Your task to perform on an android device: Open location settings Image 0: 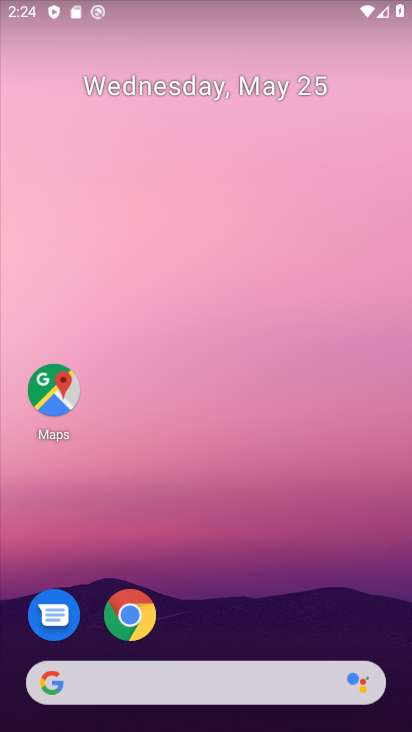
Step 0: drag from (310, 623) to (319, 0)
Your task to perform on an android device: Open location settings Image 1: 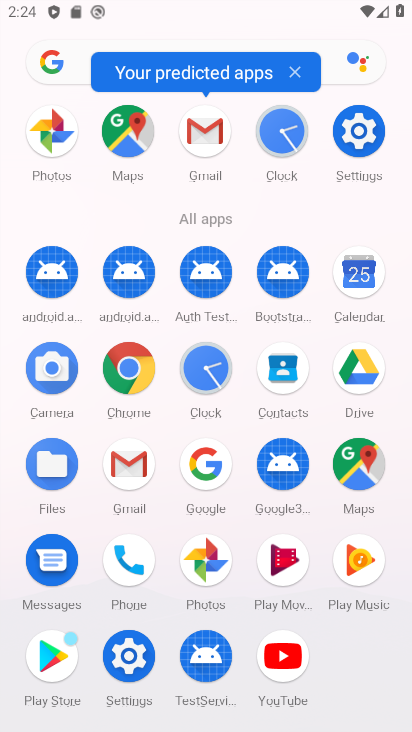
Step 1: click (124, 670)
Your task to perform on an android device: Open location settings Image 2: 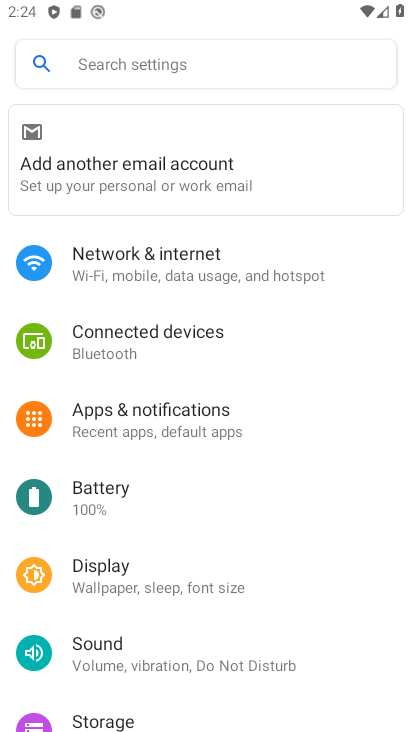
Step 2: drag from (221, 689) to (251, 218)
Your task to perform on an android device: Open location settings Image 3: 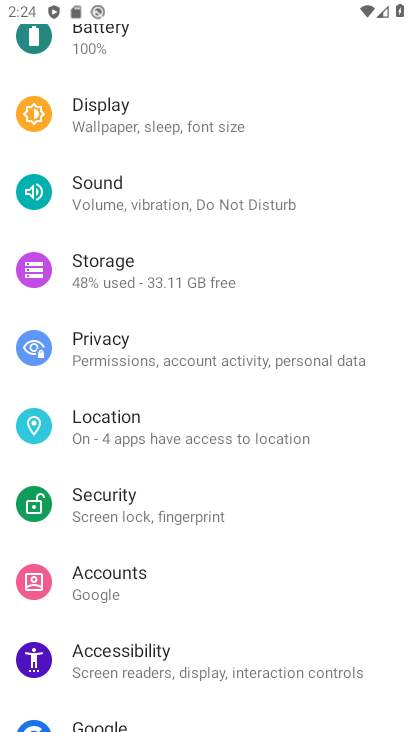
Step 3: click (163, 433)
Your task to perform on an android device: Open location settings Image 4: 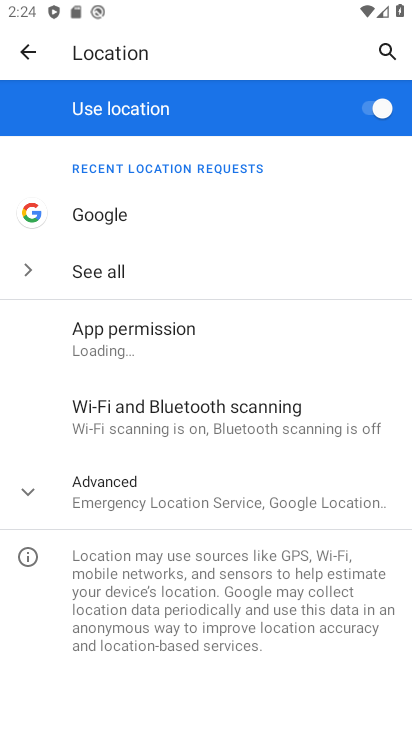
Step 4: task complete